Your task to perform on an android device: toggle show notifications on the lock screen Image 0: 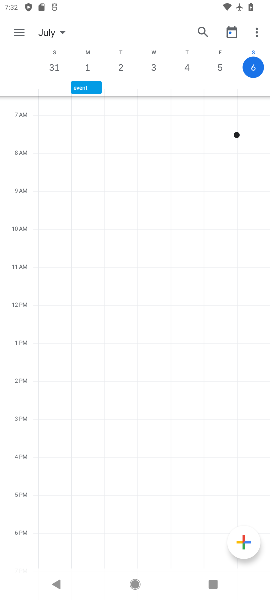
Step 0: press home button
Your task to perform on an android device: toggle show notifications on the lock screen Image 1: 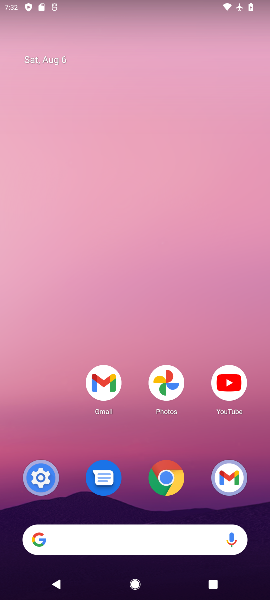
Step 1: click (30, 469)
Your task to perform on an android device: toggle show notifications on the lock screen Image 2: 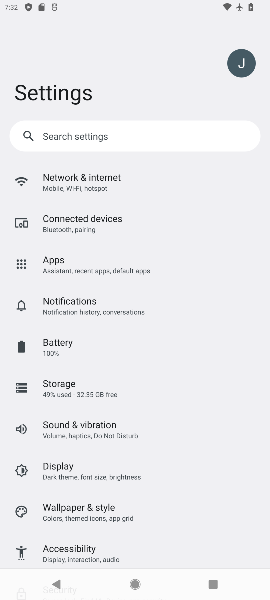
Step 2: click (56, 303)
Your task to perform on an android device: toggle show notifications on the lock screen Image 3: 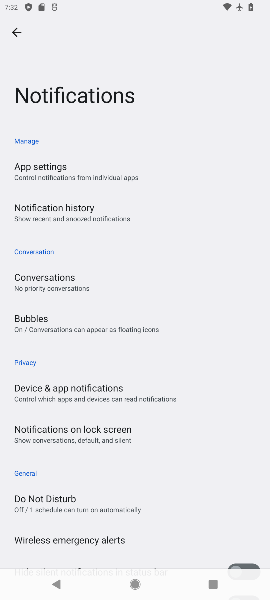
Step 3: click (64, 435)
Your task to perform on an android device: toggle show notifications on the lock screen Image 4: 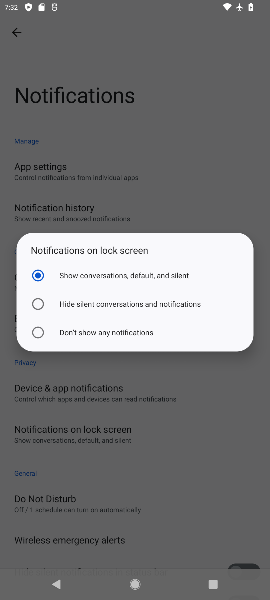
Step 4: click (37, 332)
Your task to perform on an android device: toggle show notifications on the lock screen Image 5: 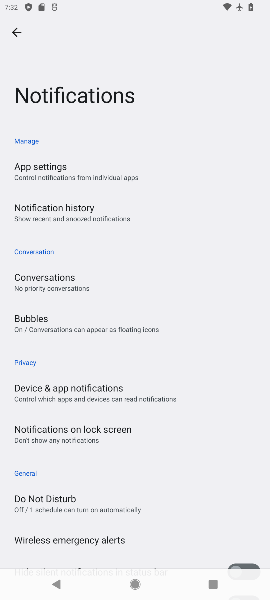
Step 5: task complete